Your task to perform on an android device: Open Maps and search for coffee Image 0: 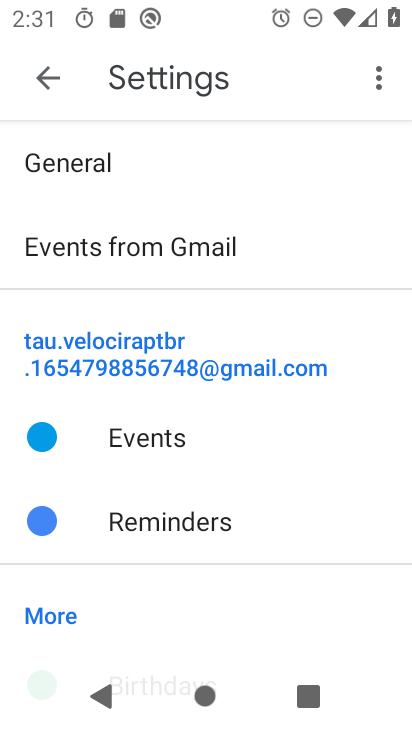
Step 0: press back button
Your task to perform on an android device: Open Maps and search for coffee Image 1: 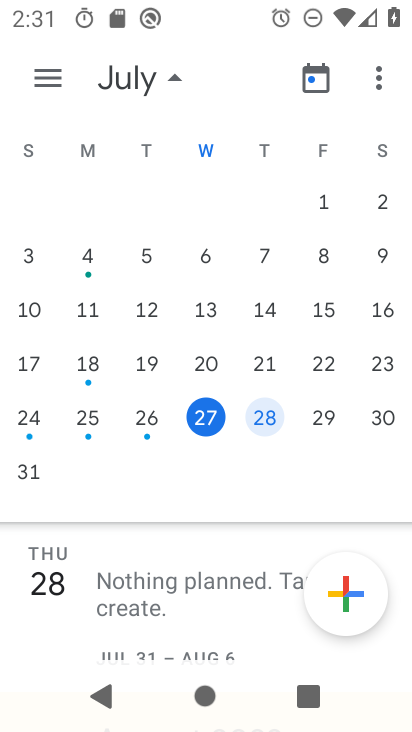
Step 1: press back button
Your task to perform on an android device: Open Maps and search for coffee Image 2: 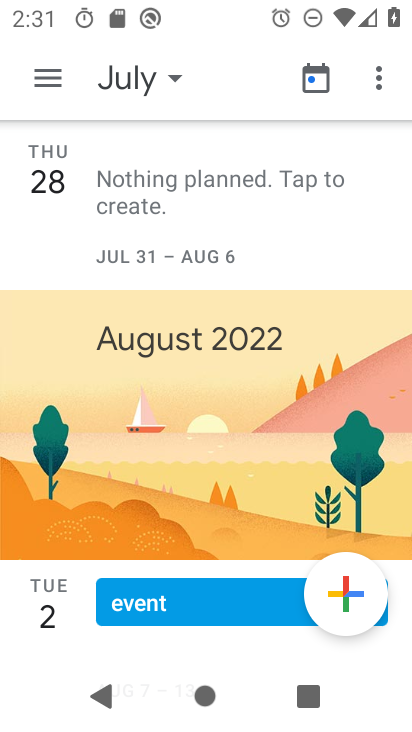
Step 2: press back button
Your task to perform on an android device: Open Maps and search for coffee Image 3: 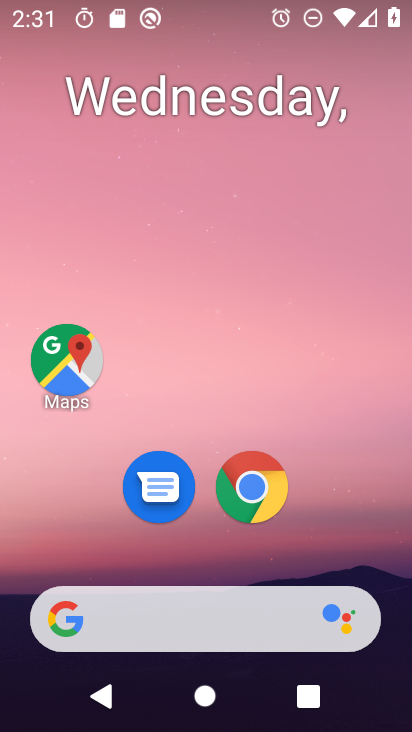
Step 3: click (87, 367)
Your task to perform on an android device: Open Maps and search for coffee Image 4: 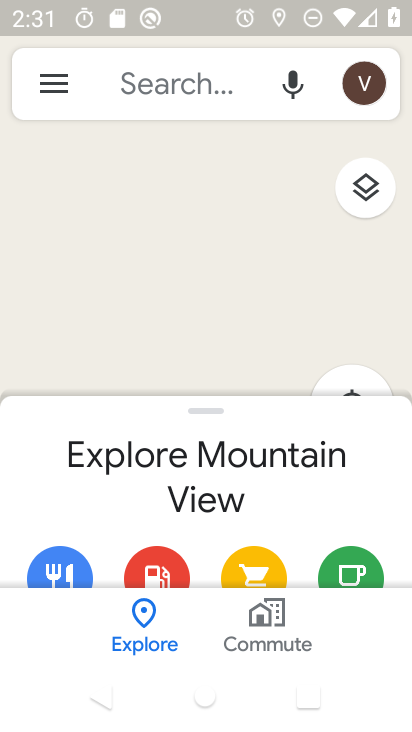
Step 4: click (143, 74)
Your task to perform on an android device: Open Maps and search for coffee Image 5: 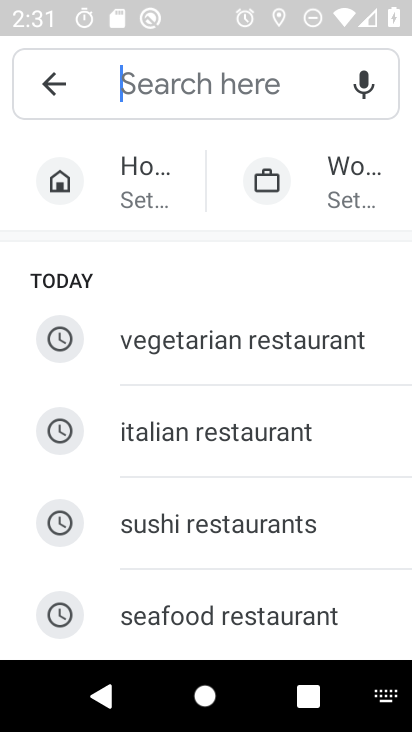
Step 5: drag from (204, 611) to (309, 103)
Your task to perform on an android device: Open Maps and search for coffee Image 6: 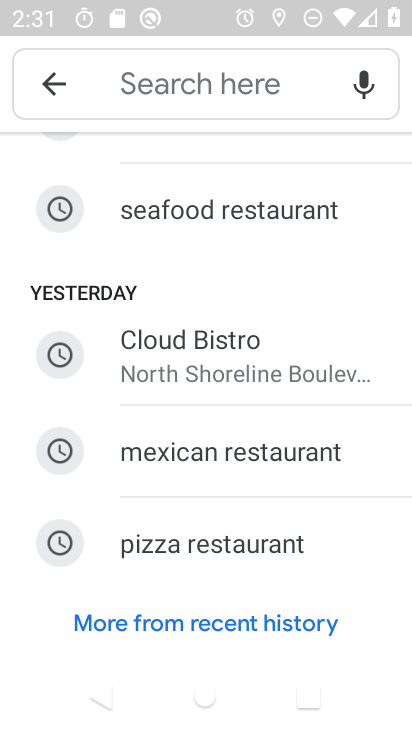
Step 6: drag from (246, 293) to (243, 692)
Your task to perform on an android device: Open Maps and search for coffee Image 7: 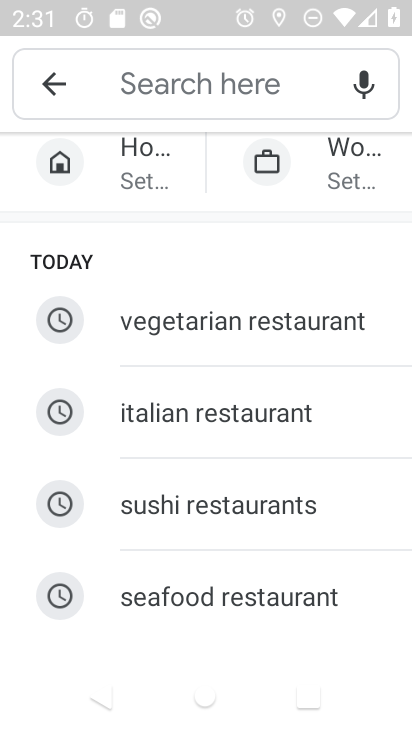
Step 7: click (160, 71)
Your task to perform on an android device: Open Maps and search for coffee Image 8: 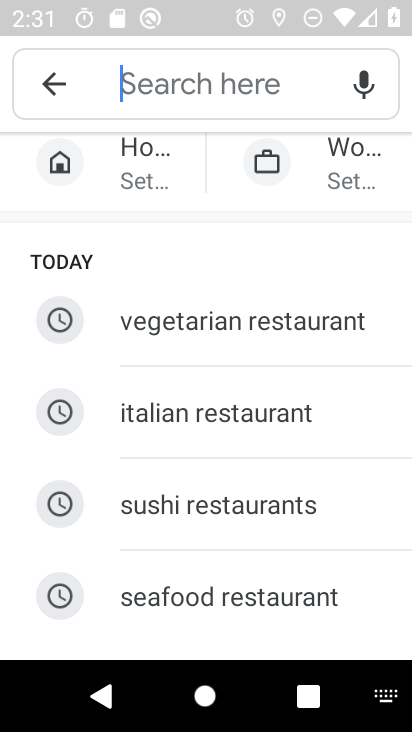
Step 8: type "coffee"
Your task to perform on an android device: Open Maps and search for coffee Image 9: 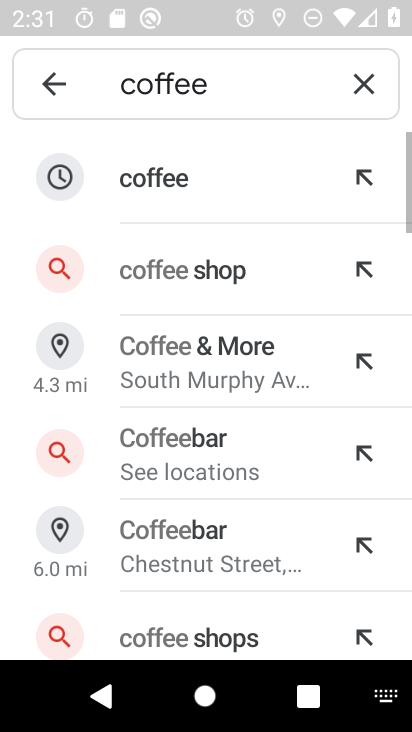
Step 9: click (248, 194)
Your task to perform on an android device: Open Maps and search for coffee Image 10: 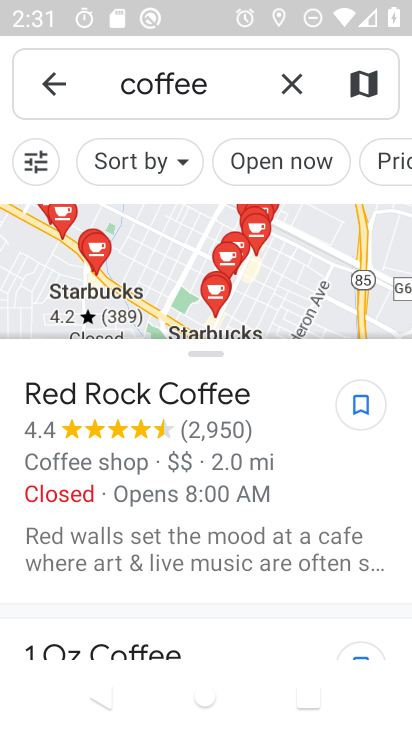
Step 10: task complete